Your task to perform on an android device: turn off picture-in-picture Image 0: 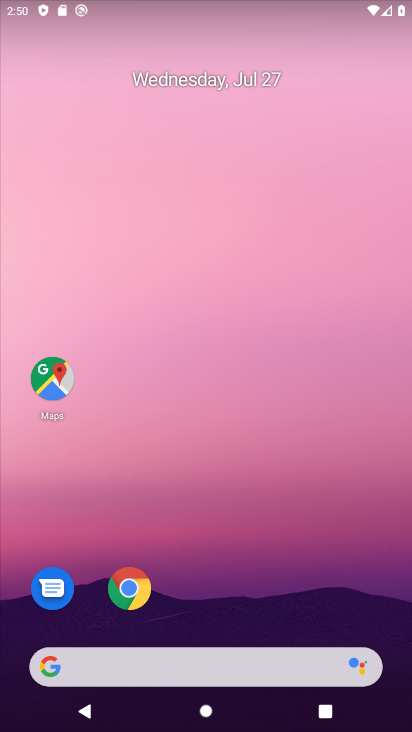
Step 0: press home button
Your task to perform on an android device: turn off picture-in-picture Image 1: 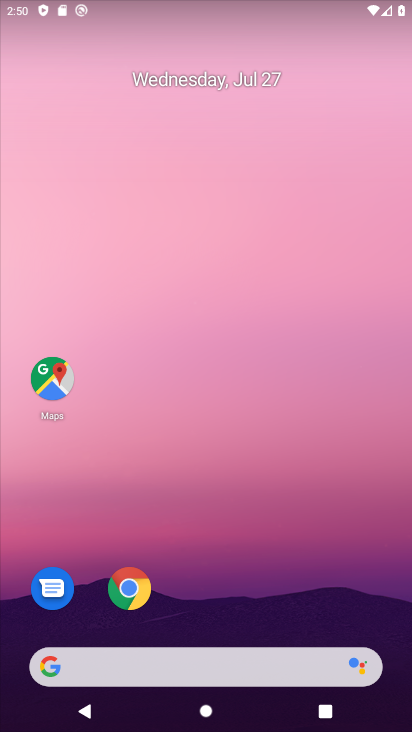
Step 1: click (219, 617)
Your task to perform on an android device: turn off picture-in-picture Image 2: 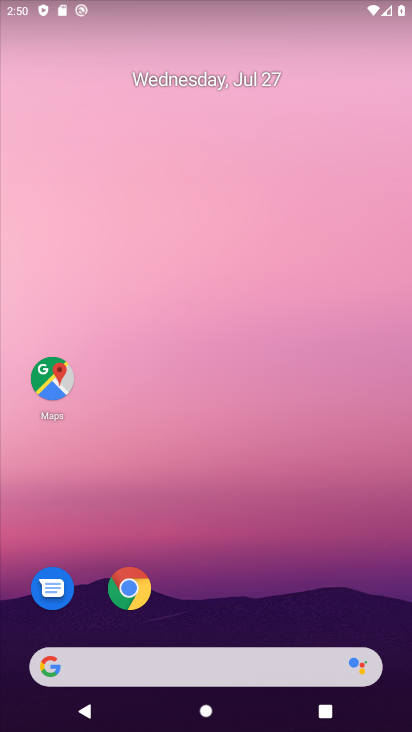
Step 2: click (126, 593)
Your task to perform on an android device: turn off picture-in-picture Image 3: 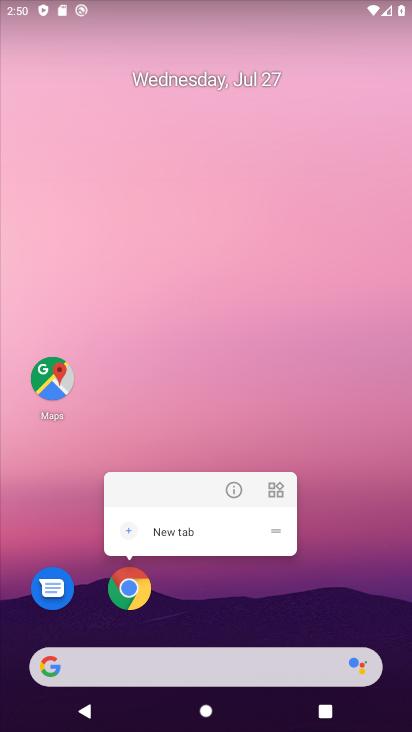
Step 3: click (232, 490)
Your task to perform on an android device: turn off picture-in-picture Image 4: 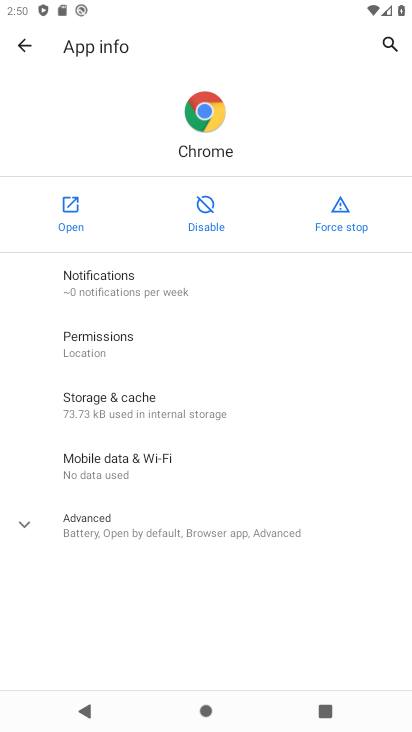
Step 4: click (90, 529)
Your task to perform on an android device: turn off picture-in-picture Image 5: 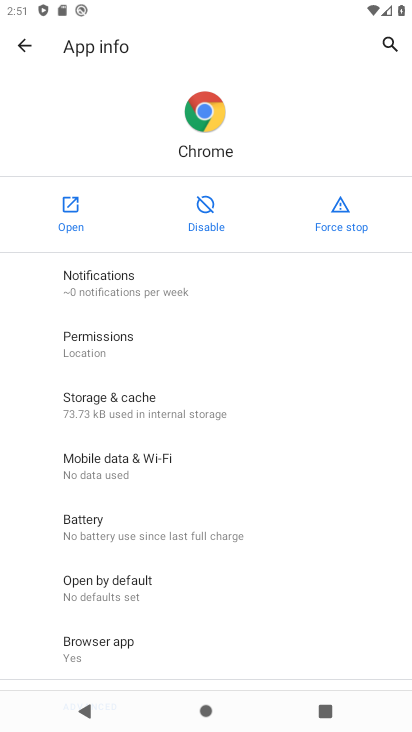
Step 5: drag from (134, 630) to (202, 247)
Your task to perform on an android device: turn off picture-in-picture Image 6: 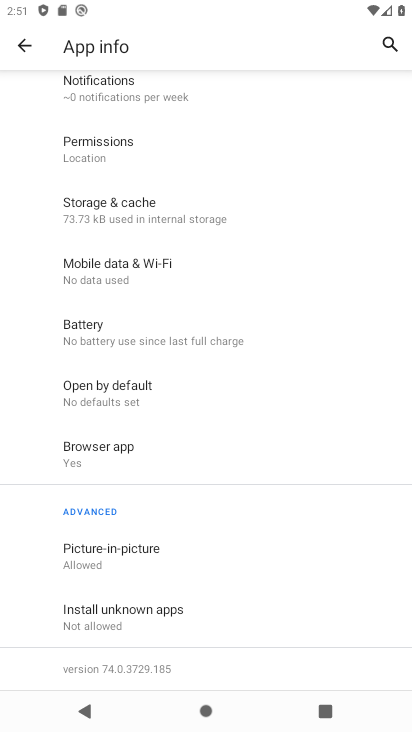
Step 6: click (140, 544)
Your task to perform on an android device: turn off picture-in-picture Image 7: 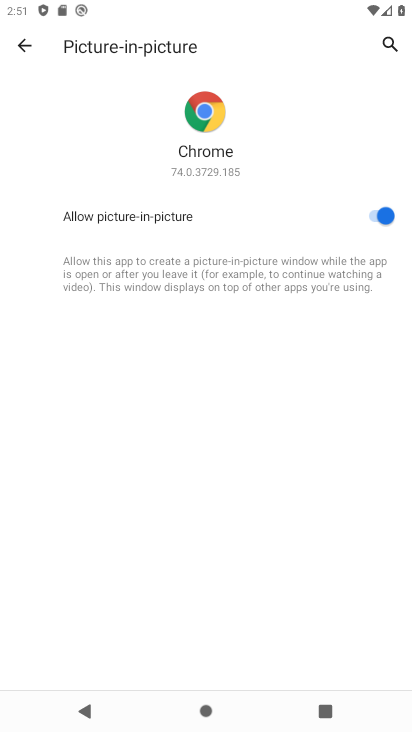
Step 7: click (380, 202)
Your task to perform on an android device: turn off picture-in-picture Image 8: 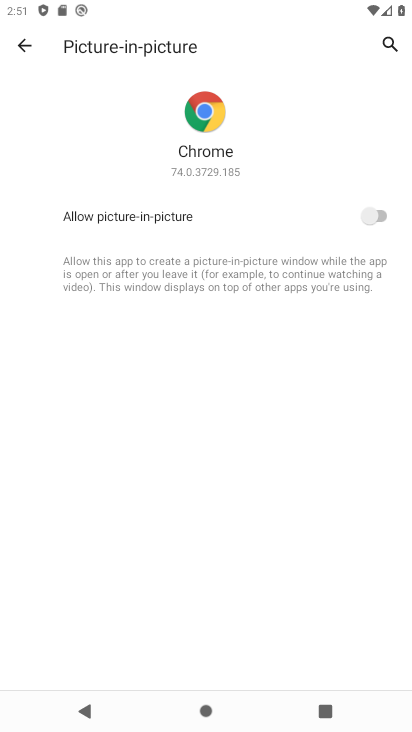
Step 8: task complete